Your task to perform on an android device: turn off airplane mode Image 0: 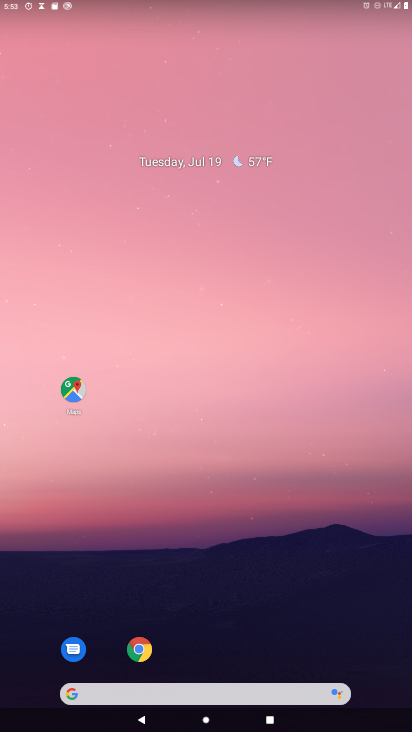
Step 0: drag from (165, 637) to (135, 14)
Your task to perform on an android device: turn off airplane mode Image 1: 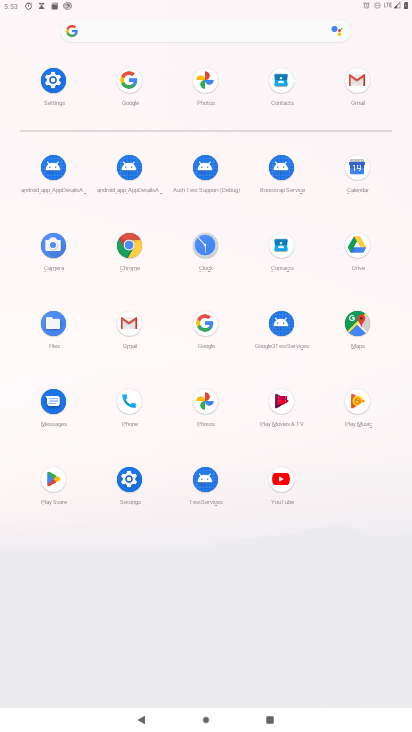
Step 1: click (53, 82)
Your task to perform on an android device: turn off airplane mode Image 2: 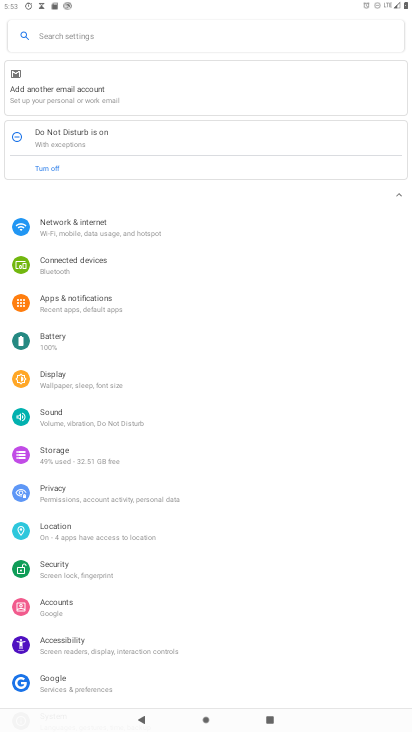
Step 2: click (53, 228)
Your task to perform on an android device: turn off airplane mode Image 3: 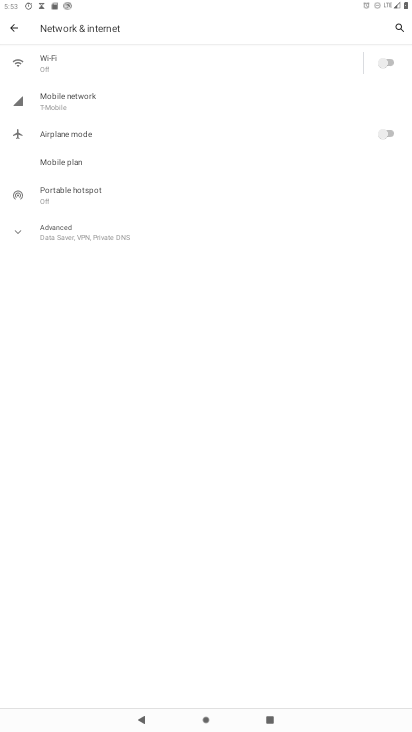
Step 3: task complete